Your task to perform on an android device: toggle wifi Image 0: 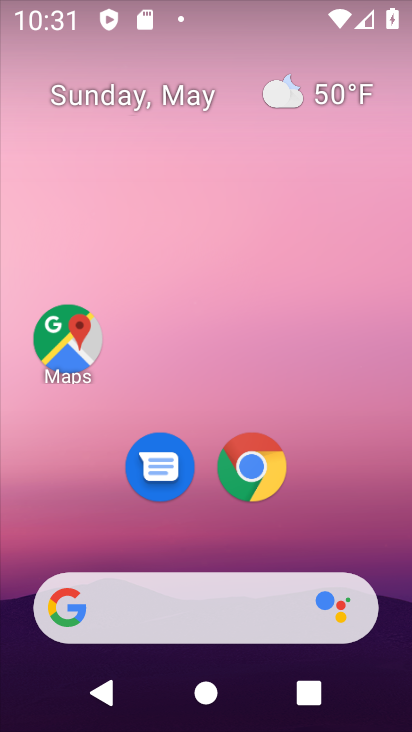
Step 0: drag from (201, 344) to (207, 143)
Your task to perform on an android device: toggle wifi Image 1: 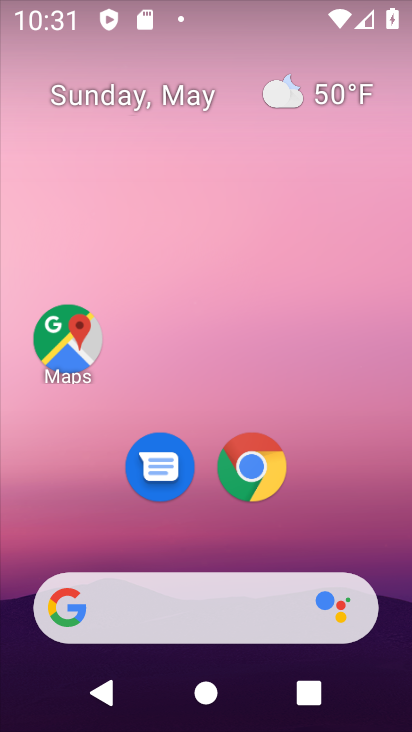
Step 1: drag from (218, 542) to (221, 62)
Your task to perform on an android device: toggle wifi Image 2: 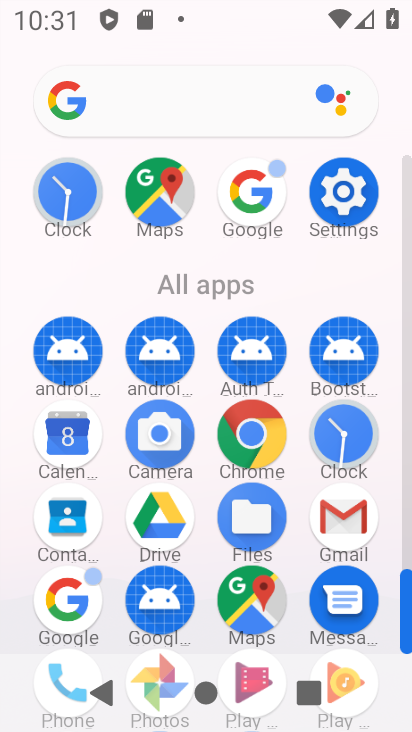
Step 2: click (342, 158)
Your task to perform on an android device: toggle wifi Image 3: 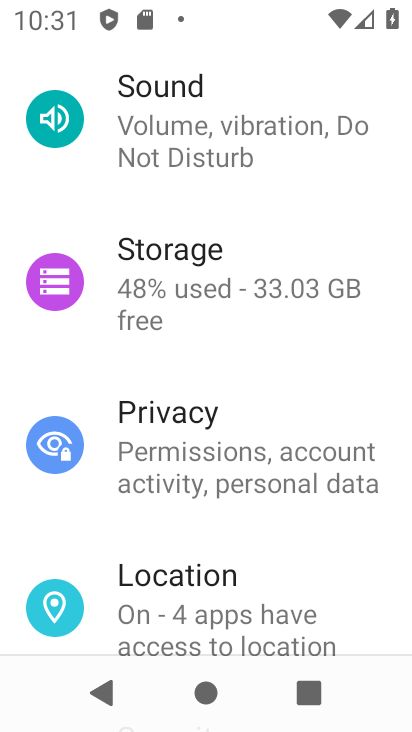
Step 3: drag from (228, 95) to (219, 611)
Your task to perform on an android device: toggle wifi Image 4: 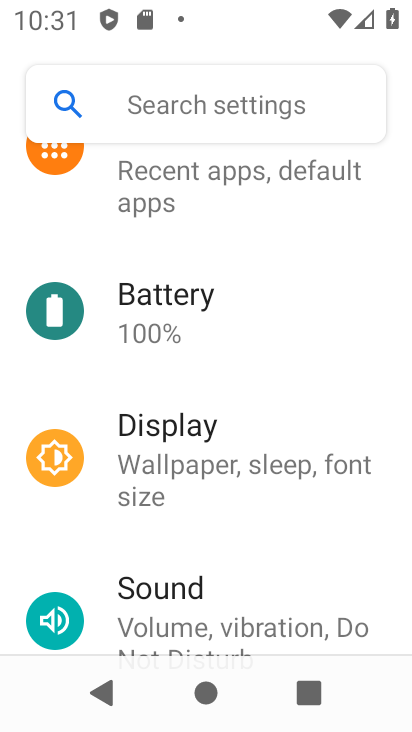
Step 4: drag from (217, 176) to (228, 621)
Your task to perform on an android device: toggle wifi Image 5: 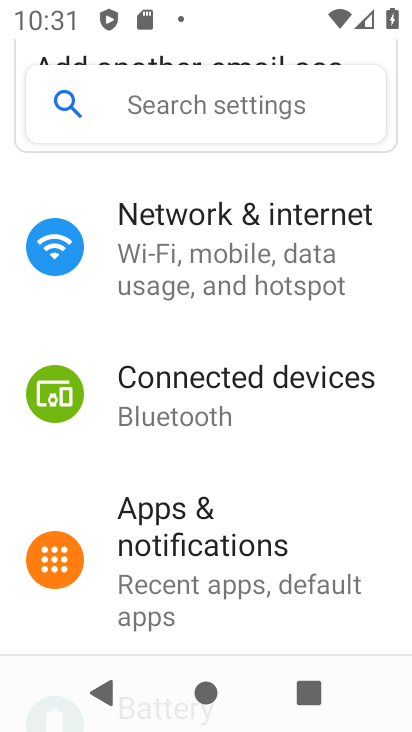
Step 5: click (225, 235)
Your task to perform on an android device: toggle wifi Image 6: 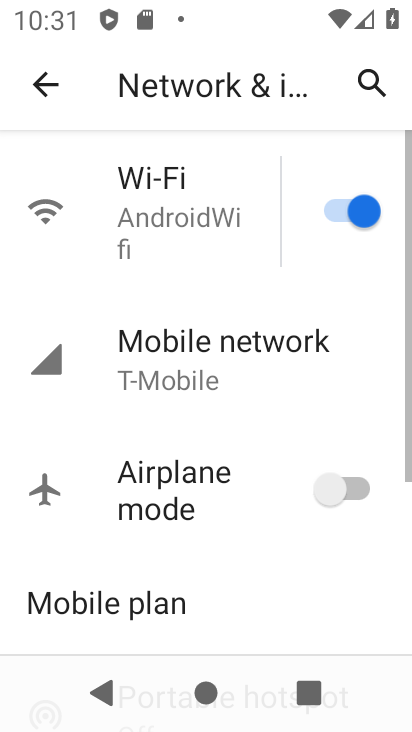
Step 6: click (333, 208)
Your task to perform on an android device: toggle wifi Image 7: 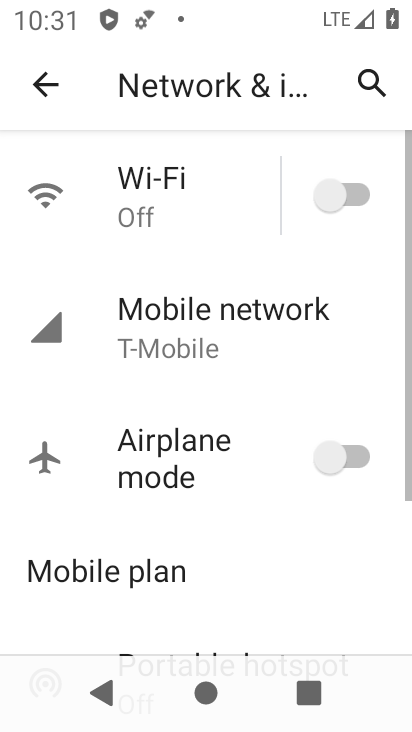
Step 7: task complete